Your task to perform on an android device: Is it going to rain today? Image 0: 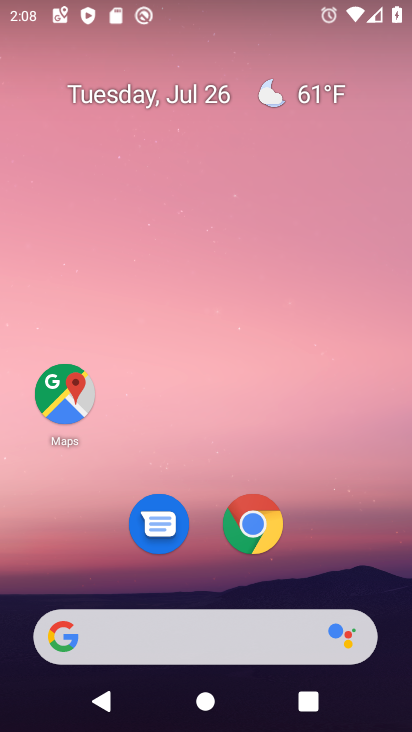
Step 0: press home button
Your task to perform on an android device: Is it going to rain today? Image 1: 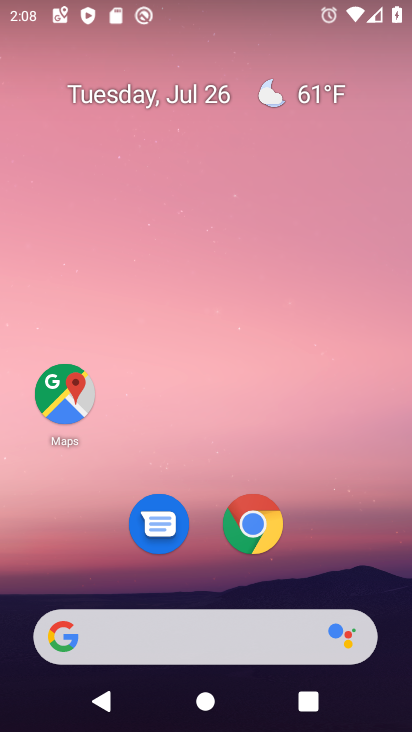
Step 1: drag from (109, 639) to (142, 573)
Your task to perform on an android device: Is it going to rain today? Image 2: 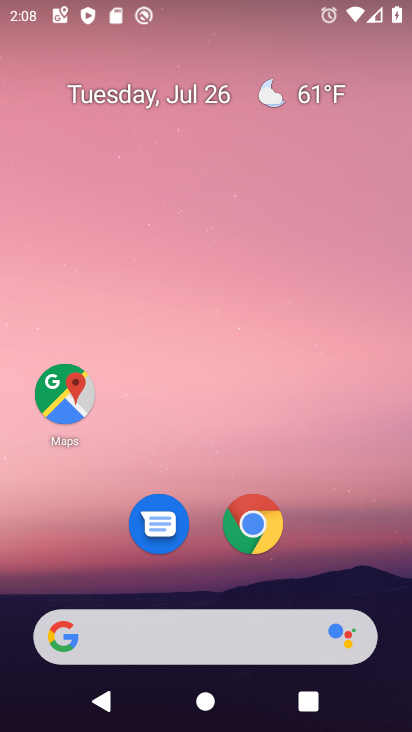
Step 2: click (137, 636)
Your task to perform on an android device: Is it going to rain today? Image 3: 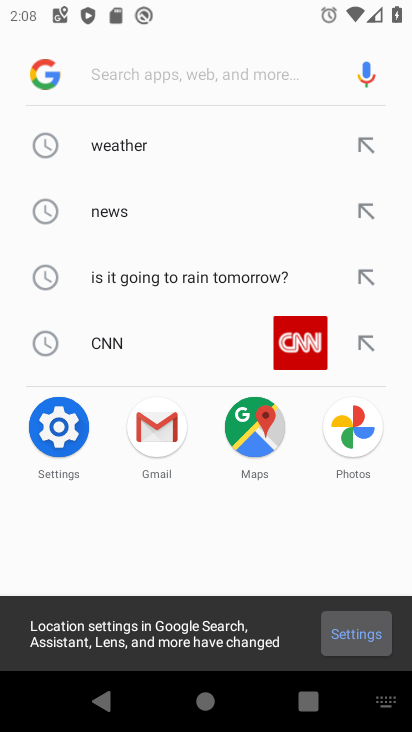
Step 3: click (130, 138)
Your task to perform on an android device: Is it going to rain today? Image 4: 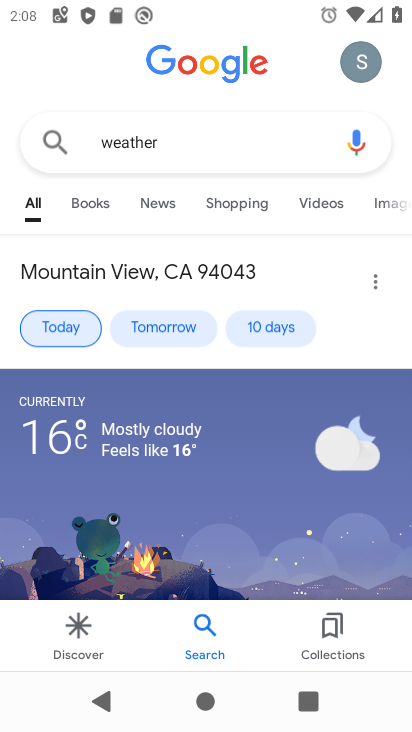
Step 4: task complete